Your task to perform on an android device: change keyboard looks Image 0: 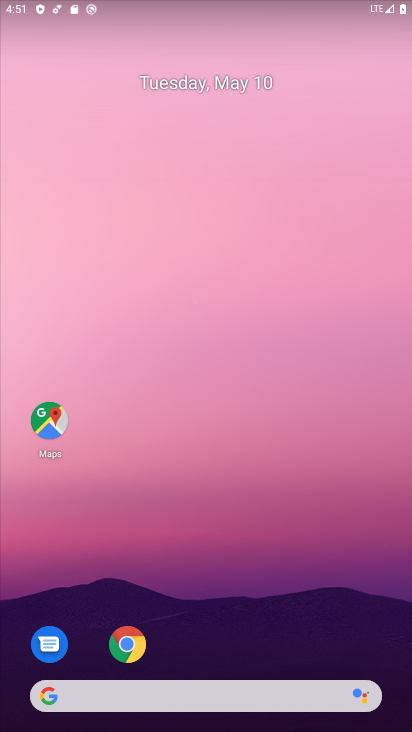
Step 0: drag from (212, 656) to (243, 59)
Your task to perform on an android device: change keyboard looks Image 1: 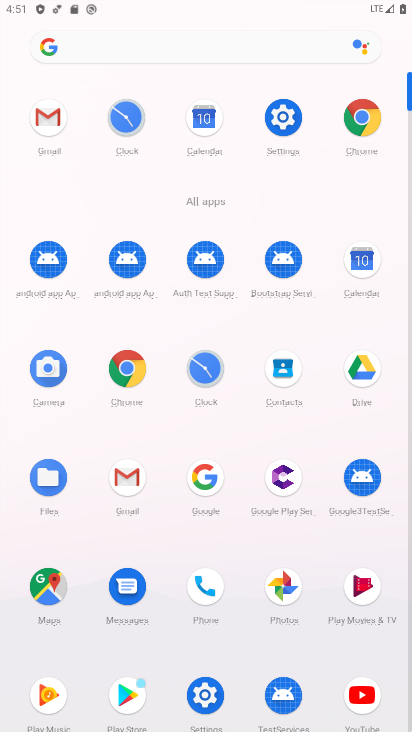
Step 1: click (274, 112)
Your task to perform on an android device: change keyboard looks Image 2: 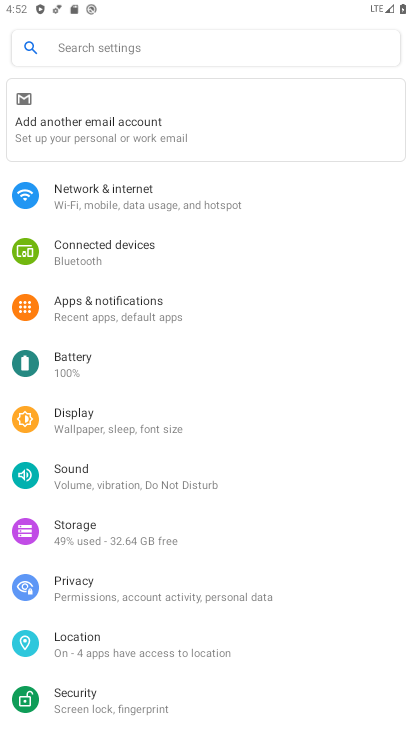
Step 2: drag from (146, 691) to (217, 229)
Your task to perform on an android device: change keyboard looks Image 3: 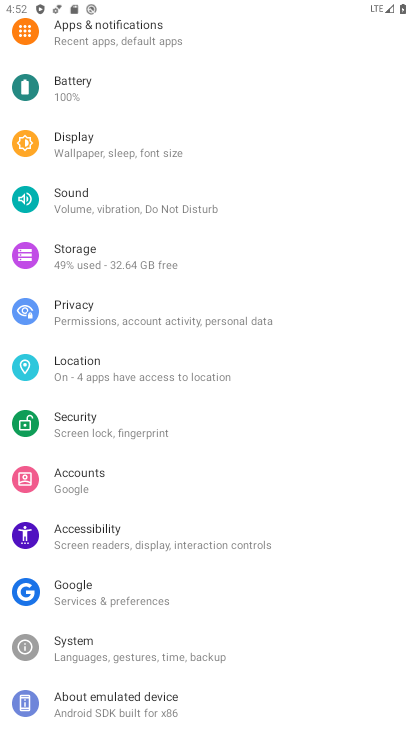
Step 3: click (103, 644)
Your task to perform on an android device: change keyboard looks Image 4: 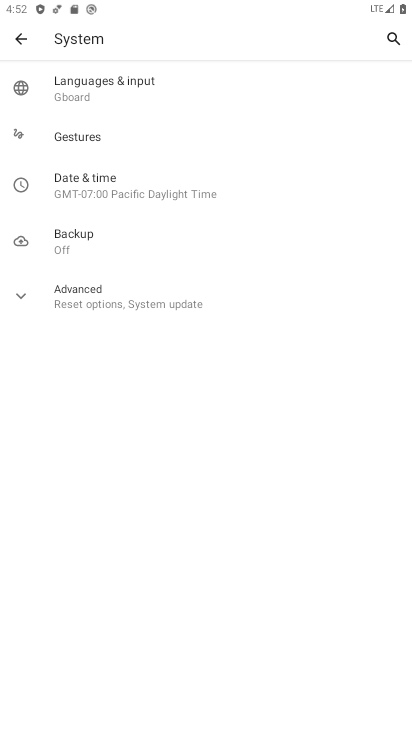
Step 4: click (104, 94)
Your task to perform on an android device: change keyboard looks Image 5: 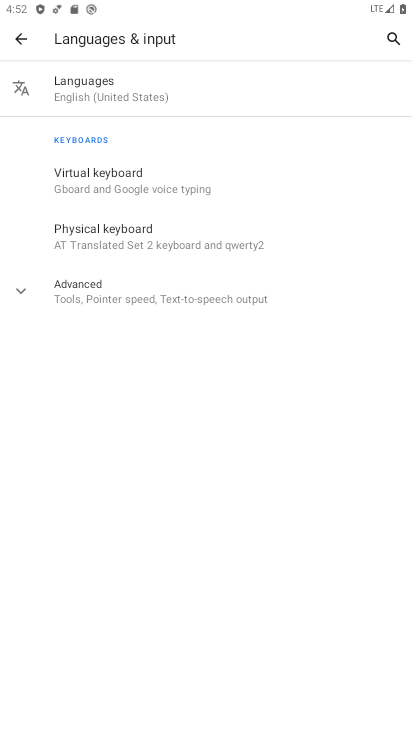
Step 5: click (115, 177)
Your task to perform on an android device: change keyboard looks Image 6: 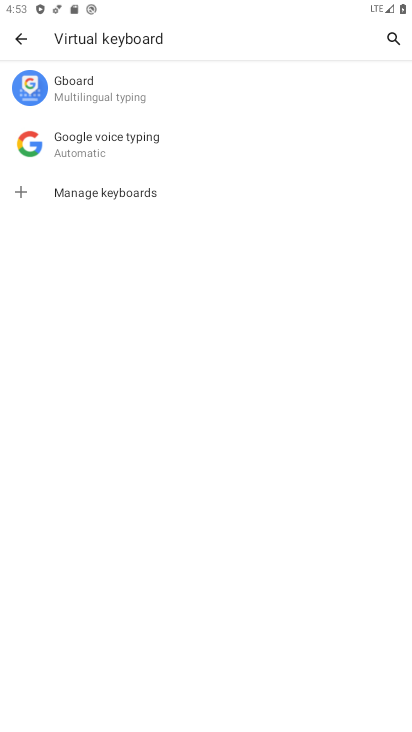
Step 6: click (103, 99)
Your task to perform on an android device: change keyboard looks Image 7: 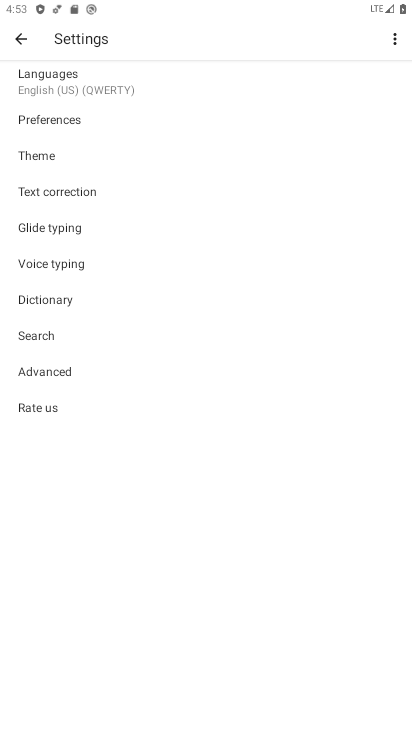
Step 7: click (59, 158)
Your task to perform on an android device: change keyboard looks Image 8: 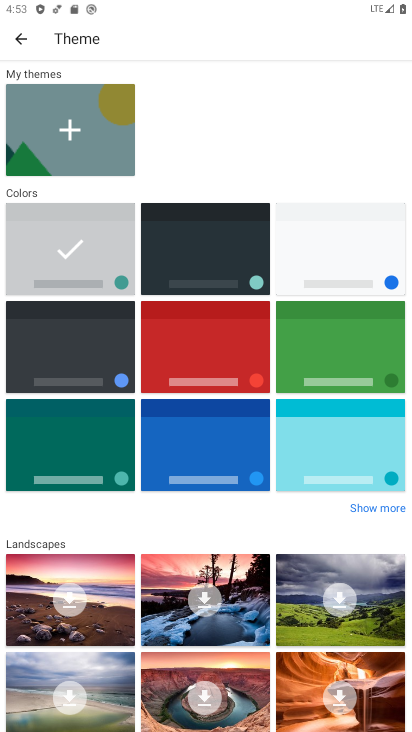
Step 8: click (207, 446)
Your task to perform on an android device: change keyboard looks Image 9: 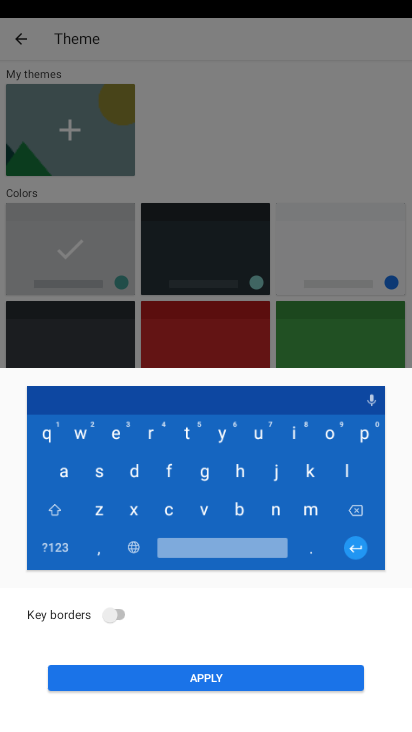
Step 9: click (203, 675)
Your task to perform on an android device: change keyboard looks Image 10: 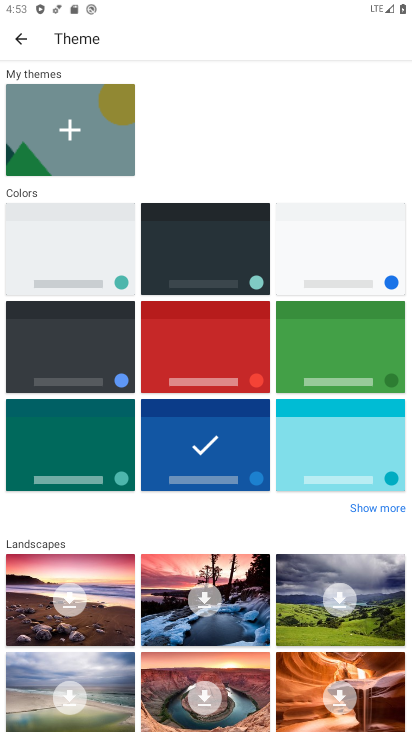
Step 10: task complete